Your task to perform on an android device: change notifications settings Image 0: 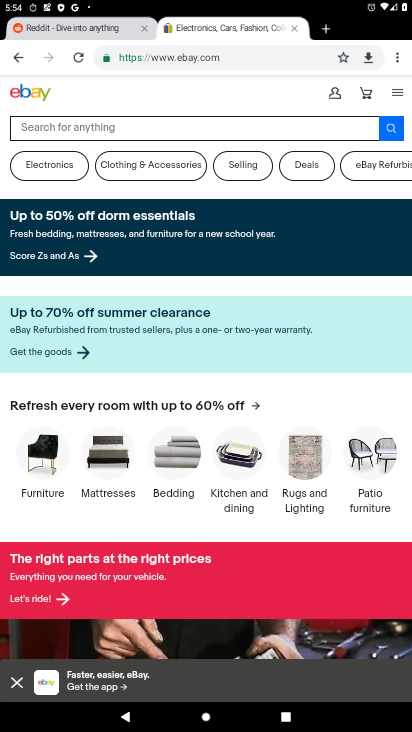
Step 0: press home button
Your task to perform on an android device: change notifications settings Image 1: 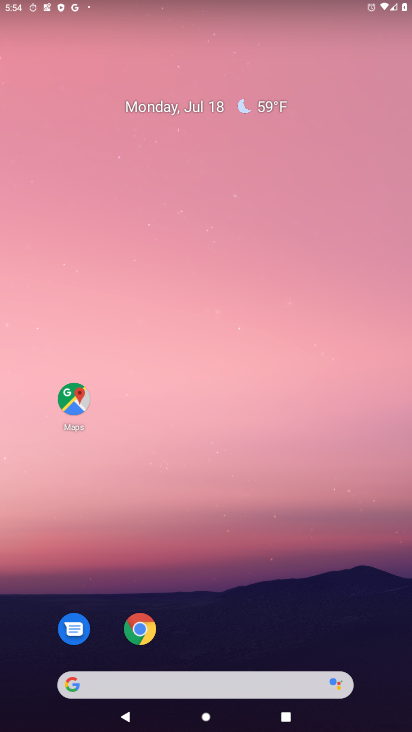
Step 1: drag from (274, 609) to (232, 21)
Your task to perform on an android device: change notifications settings Image 2: 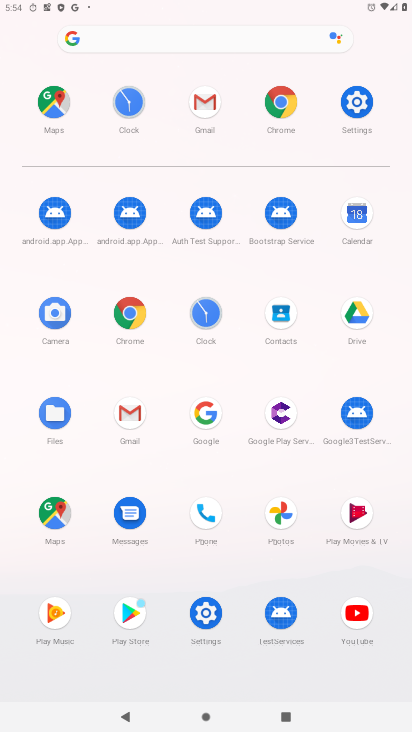
Step 2: click (361, 97)
Your task to perform on an android device: change notifications settings Image 3: 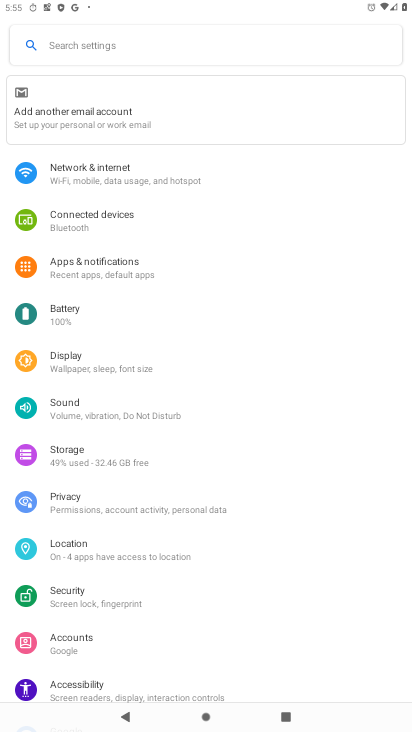
Step 3: click (93, 266)
Your task to perform on an android device: change notifications settings Image 4: 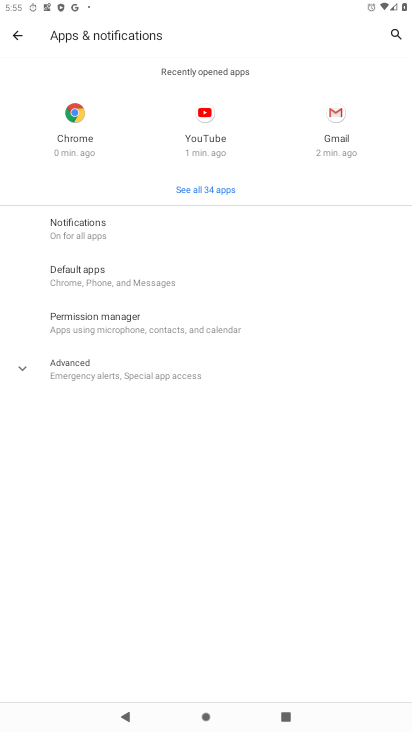
Step 4: click (101, 231)
Your task to perform on an android device: change notifications settings Image 5: 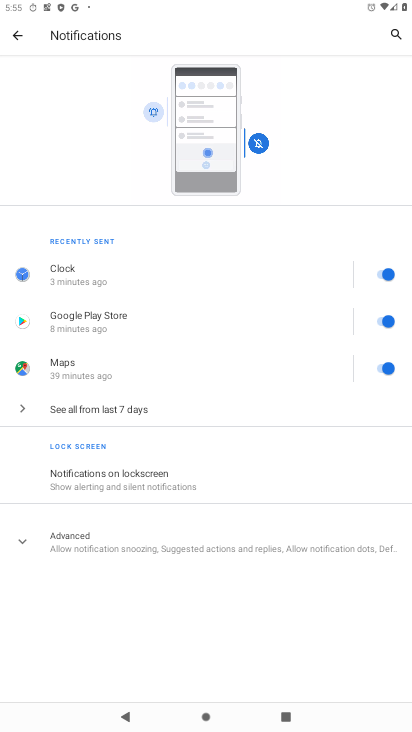
Step 5: task complete